Your task to perform on an android device: add a contact in the contacts app Image 0: 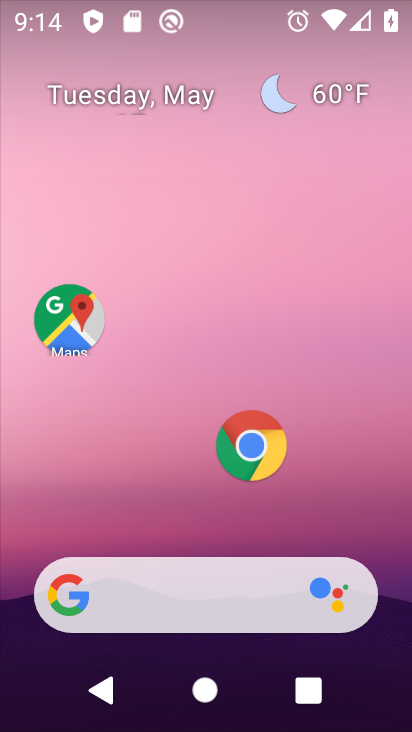
Step 0: drag from (331, 508) to (262, 252)
Your task to perform on an android device: add a contact in the contacts app Image 1: 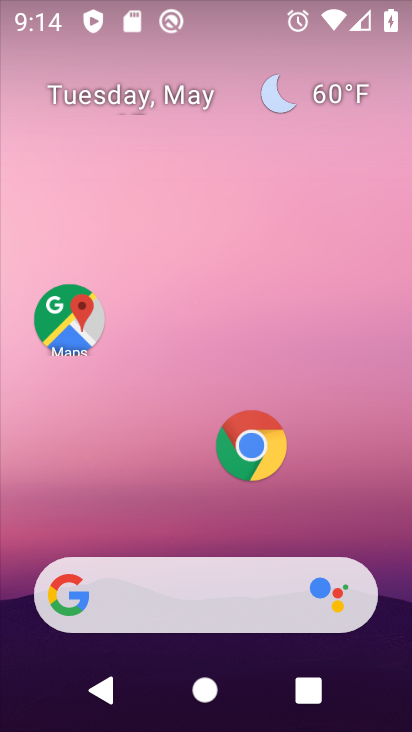
Step 1: drag from (263, 540) to (159, 100)
Your task to perform on an android device: add a contact in the contacts app Image 2: 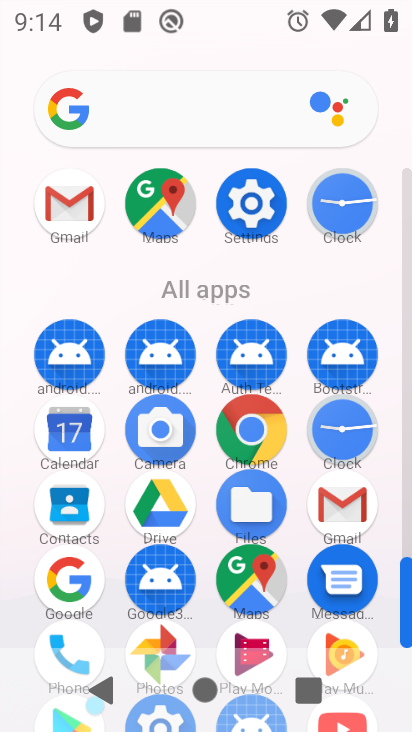
Step 2: click (60, 515)
Your task to perform on an android device: add a contact in the contacts app Image 3: 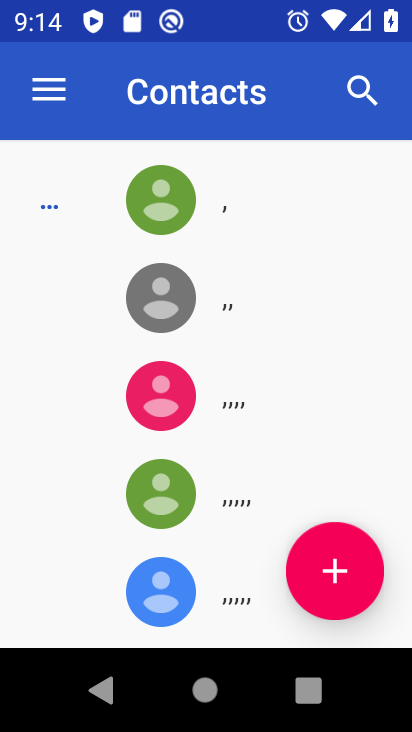
Step 3: click (331, 570)
Your task to perform on an android device: add a contact in the contacts app Image 4: 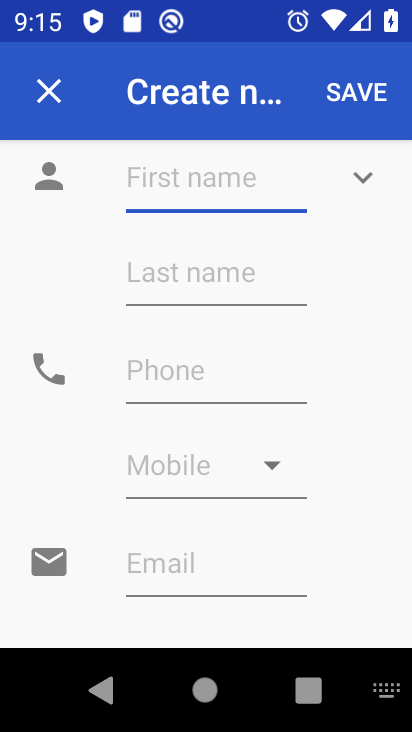
Step 4: type "Virangna"
Your task to perform on an android device: add a contact in the contacts app Image 5: 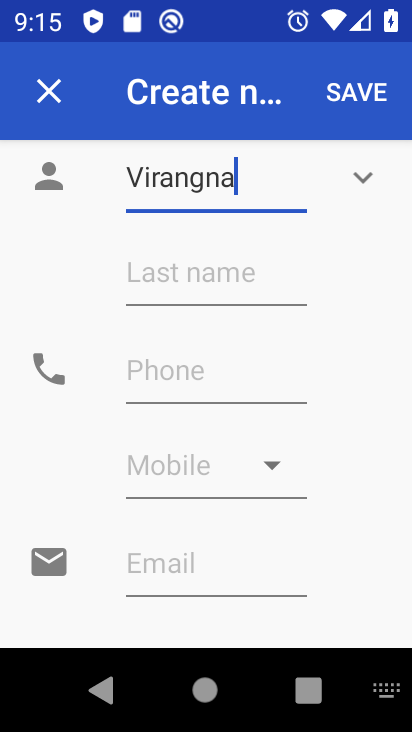
Step 5: click (247, 300)
Your task to perform on an android device: add a contact in the contacts app Image 6: 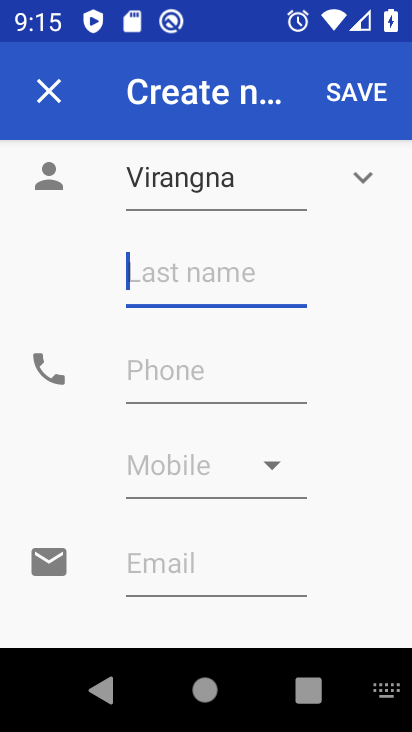
Step 6: type "Lakshmi bai"
Your task to perform on an android device: add a contact in the contacts app Image 7: 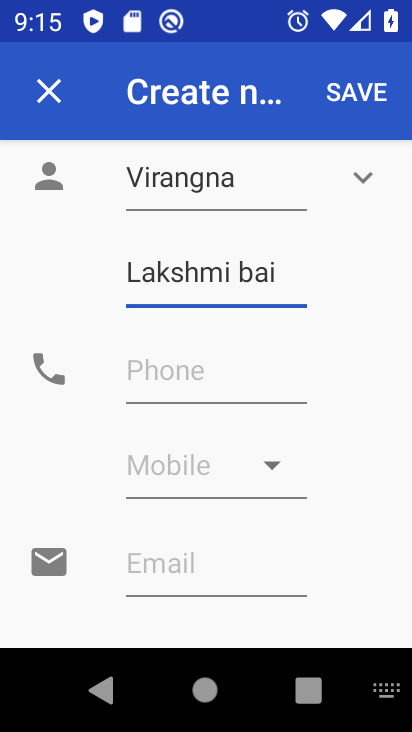
Step 7: click (201, 370)
Your task to perform on an android device: add a contact in the contacts app Image 8: 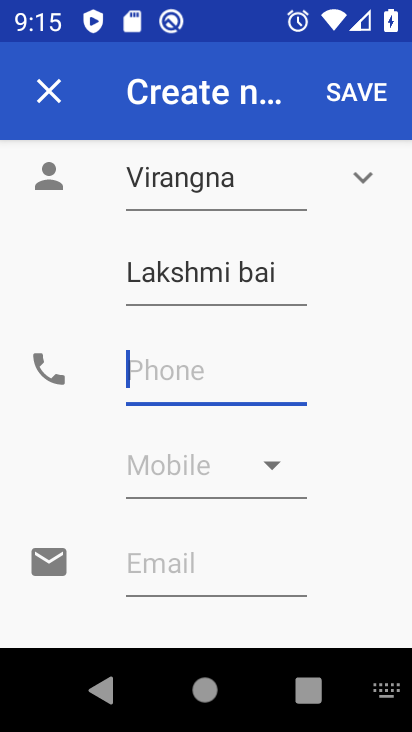
Step 8: type "8989989890"
Your task to perform on an android device: add a contact in the contacts app Image 9: 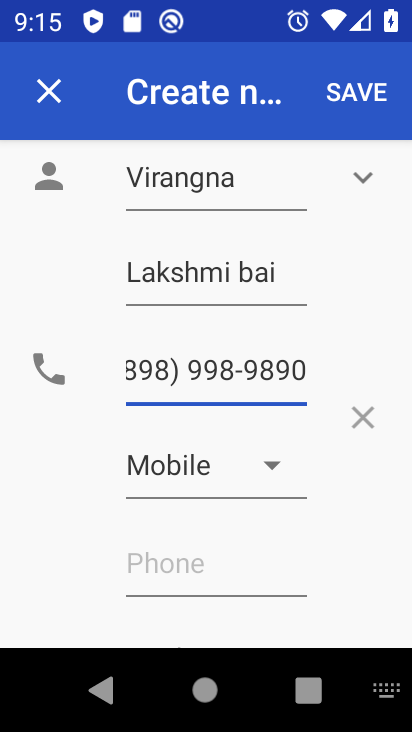
Step 9: click (346, 102)
Your task to perform on an android device: add a contact in the contacts app Image 10: 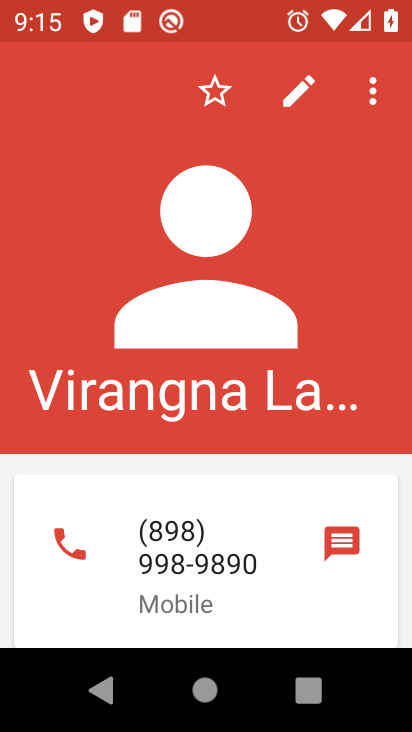
Step 10: task complete